Your task to perform on an android device: Play the last video I watched on Youtube Image 0: 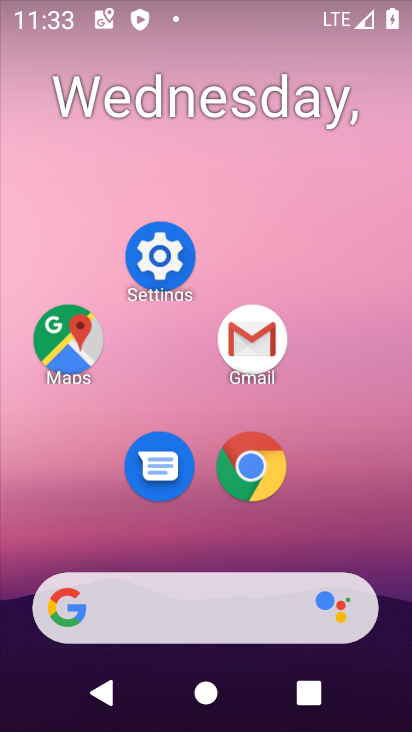
Step 0: drag from (192, 520) to (251, 94)
Your task to perform on an android device: Play the last video I watched on Youtube Image 1: 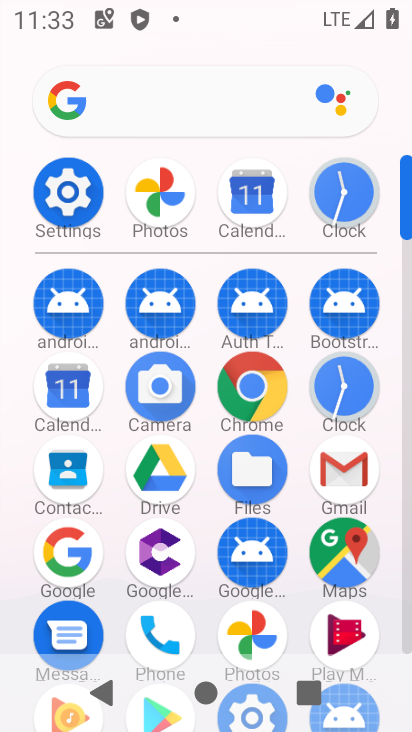
Step 1: drag from (205, 437) to (222, 226)
Your task to perform on an android device: Play the last video I watched on Youtube Image 2: 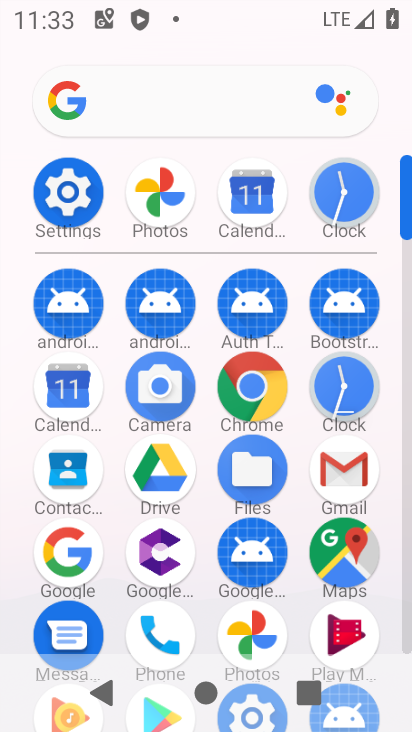
Step 2: drag from (216, 560) to (237, 167)
Your task to perform on an android device: Play the last video I watched on Youtube Image 3: 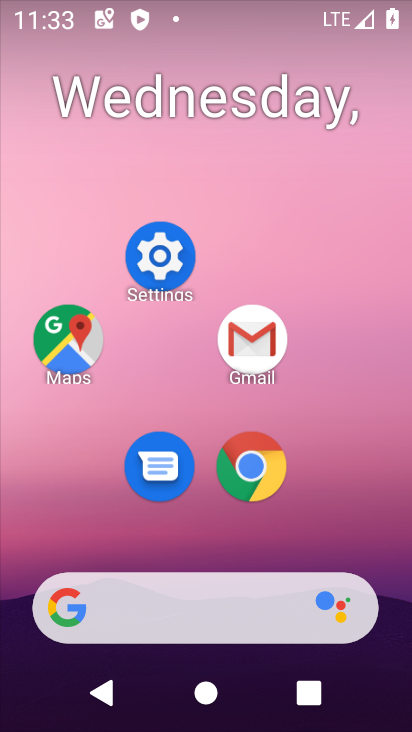
Step 3: drag from (204, 592) to (275, 286)
Your task to perform on an android device: Play the last video I watched on Youtube Image 4: 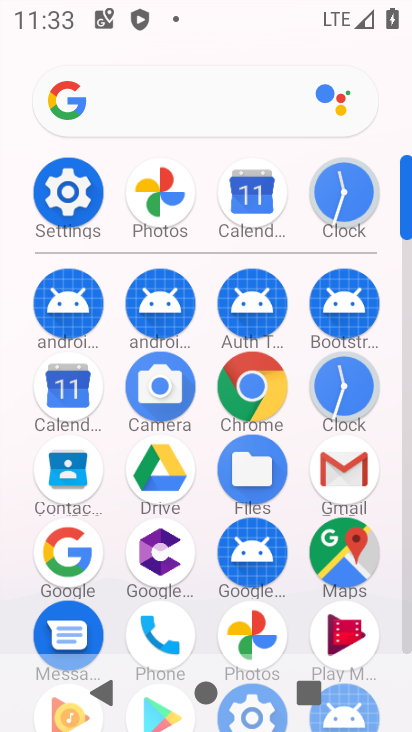
Step 4: drag from (204, 615) to (255, 29)
Your task to perform on an android device: Play the last video I watched on Youtube Image 5: 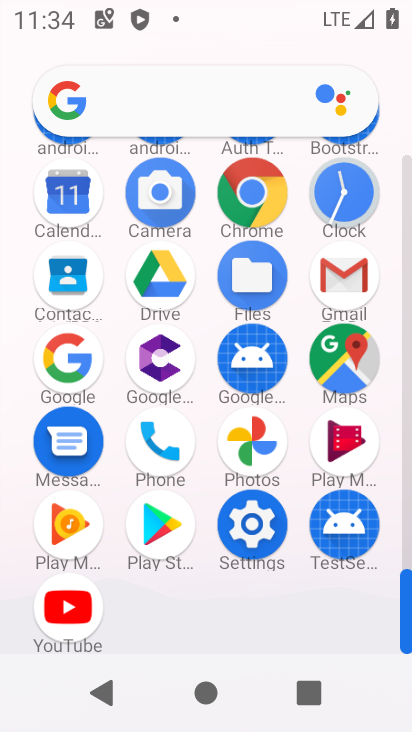
Step 5: click (62, 609)
Your task to perform on an android device: Play the last video I watched on Youtube Image 6: 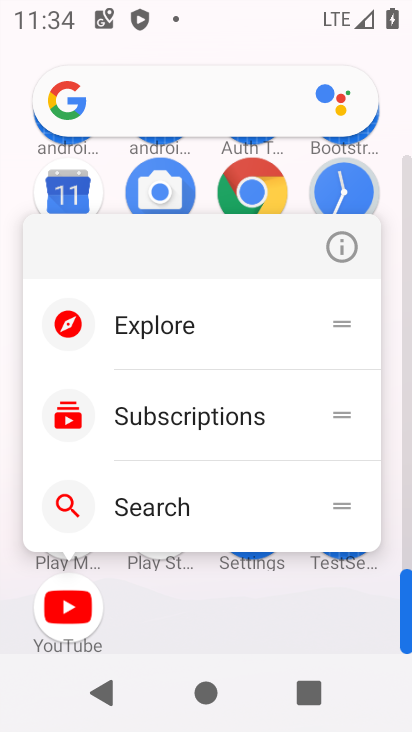
Step 6: click (331, 261)
Your task to perform on an android device: Play the last video I watched on Youtube Image 7: 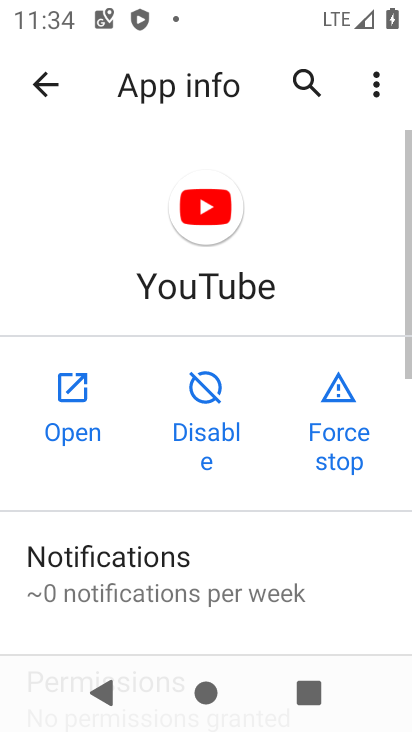
Step 7: click (84, 410)
Your task to perform on an android device: Play the last video I watched on Youtube Image 8: 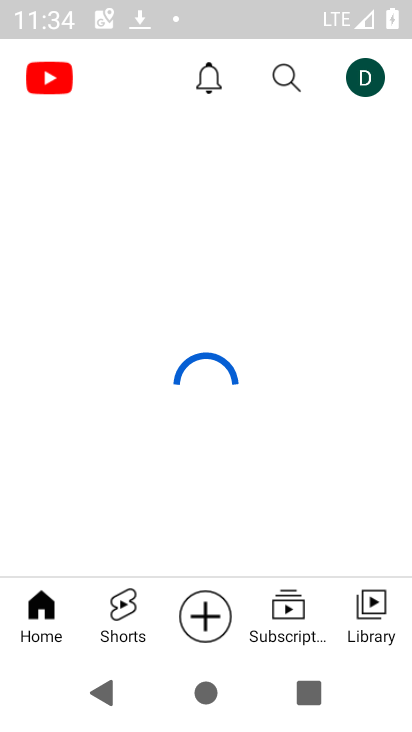
Step 8: click (375, 622)
Your task to perform on an android device: Play the last video I watched on Youtube Image 9: 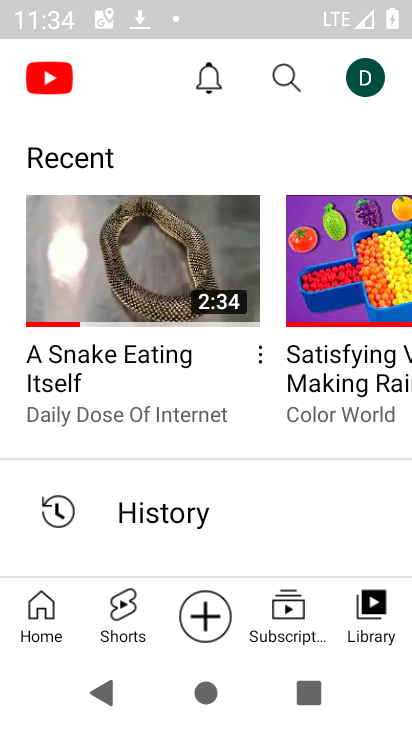
Step 9: click (175, 294)
Your task to perform on an android device: Play the last video I watched on Youtube Image 10: 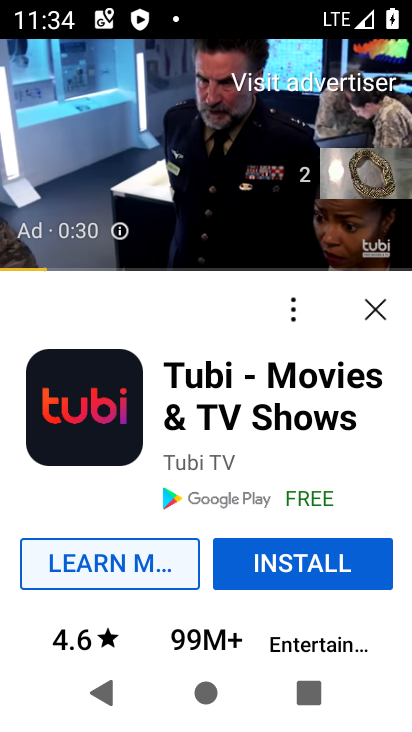
Step 10: task complete